Your task to perform on an android device: Open Youtube and go to the subscriptions tab Image 0: 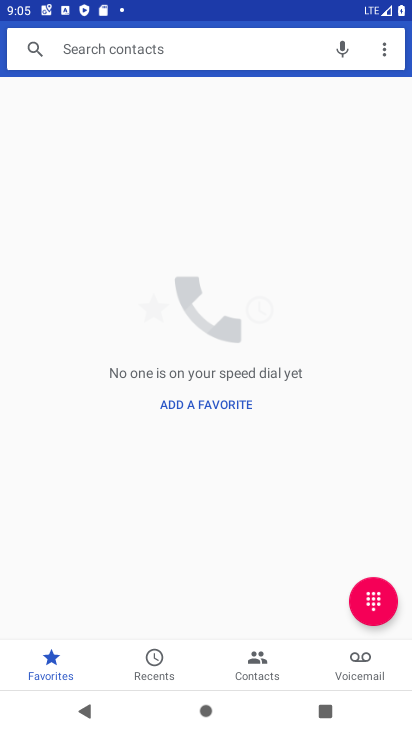
Step 0: press home button
Your task to perform on an android device: Open Youtube and go to the subscriptions tab Image 1: 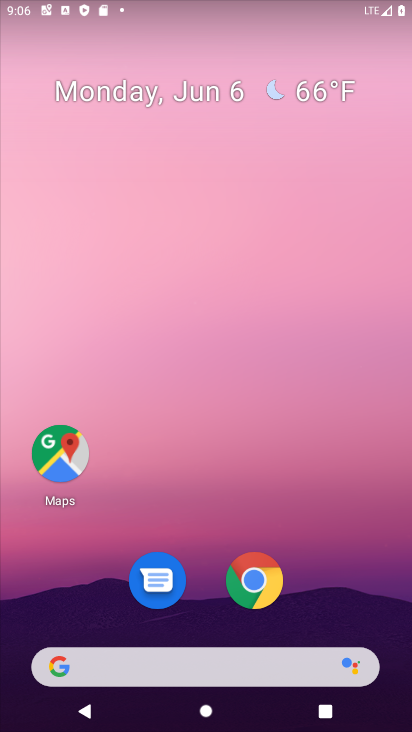
Step 1: drag from (330, 495) to (13, 212)
Your task to perform on an android device: Open Youtube and go to the subscriptions tab Image 2: 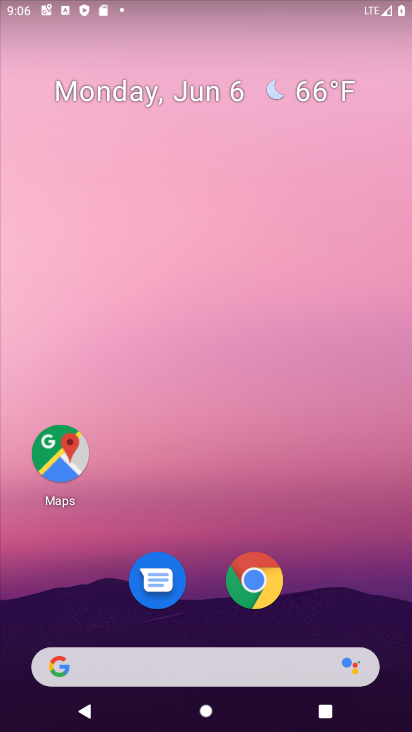
Step 2: drag from (368, 506) to (369, 5)
Your task to perform on an android device: Open Youtube and go to the subscriptions tab Image 3: 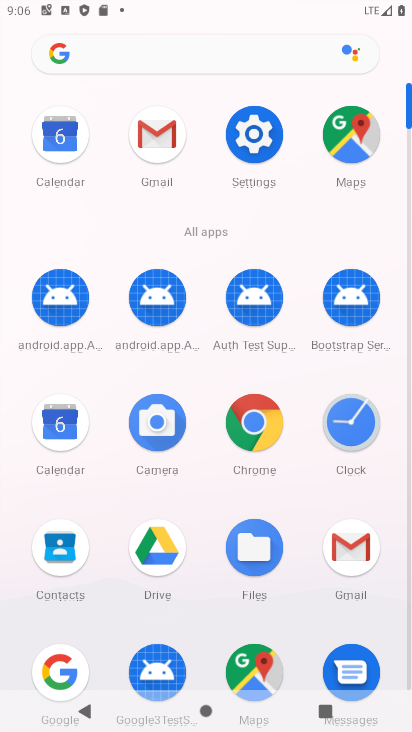
Step 3: drag from (381, 603) to (315, 25)
Your task to perform on an android device: Open Youtube and go to the subscriptions tab Image 4: 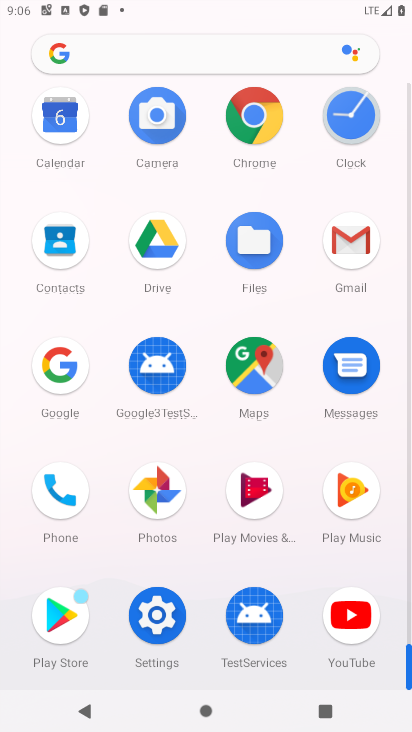
Step 4: click (355, 610)
Your task to perform on an android device: Open Youtube and go to the subscriptions tab Image 5: 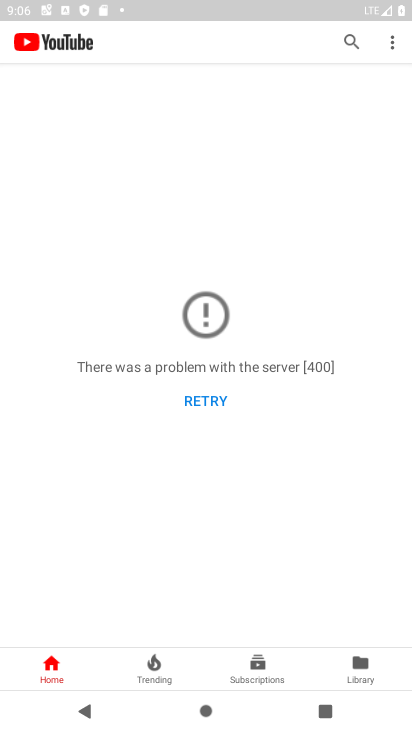
Step 5: click (242, 678)
Your task to perform on an android device: Open Youtube and go to the subscriptions tab Image 6: 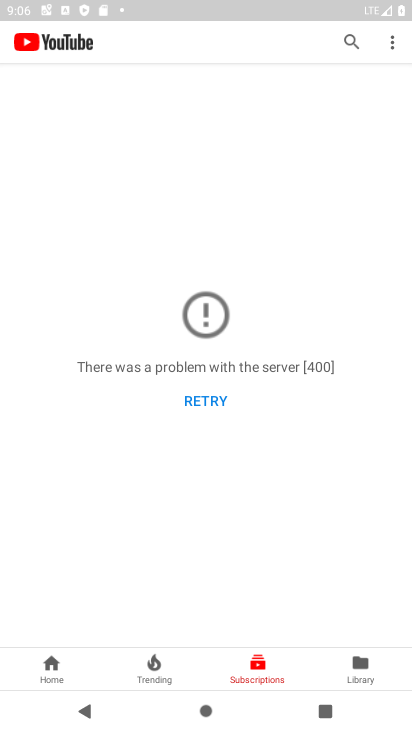
Step 6: task complete